Your task to perform on an android device: manage bookmarks in the chrome app Image 0: 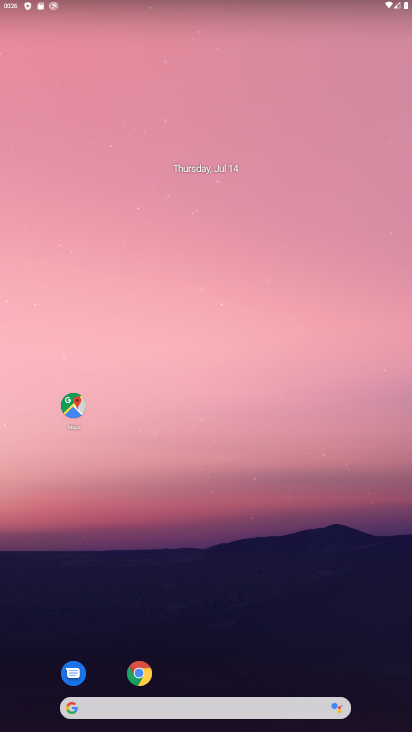
Step 0: click (142, 661)
Your task to perform on an android device: manage bookmarks in the chrome app Image 1: 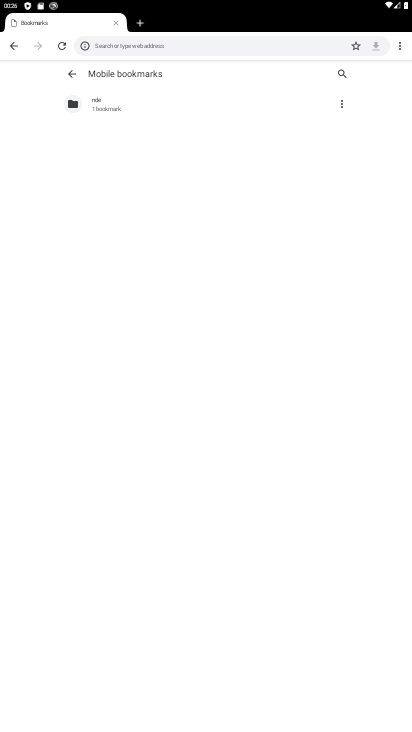
Step 1: task complete